Your task to perform on an android device: Go to Google maps Image 0: 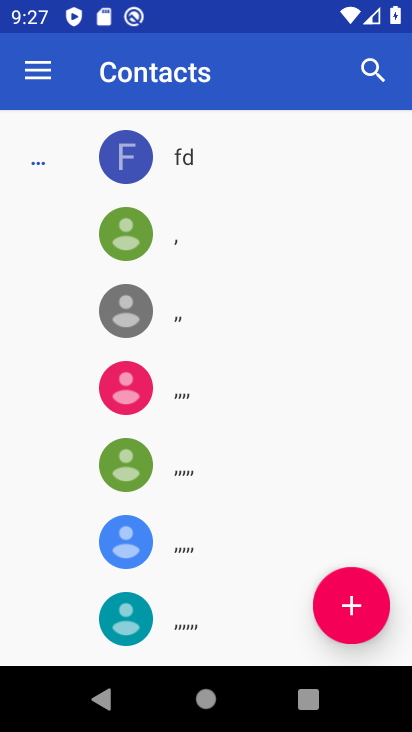
Step 0: press home button
Your task to perform on an android device: Go to Google maps Image 1: 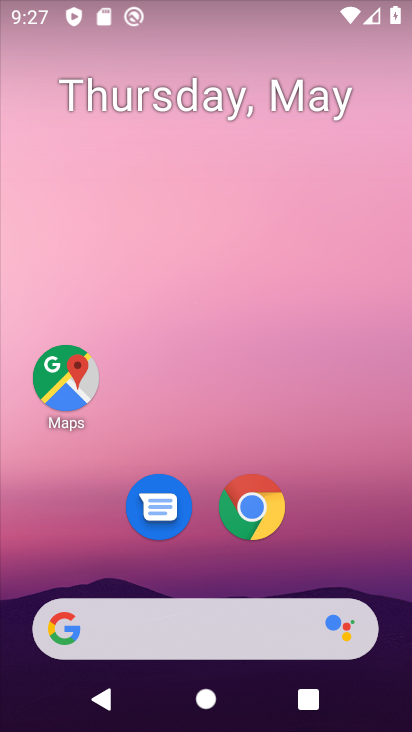
Step 1: drag from (366, 549) to (314, 199)
Your task to perform on an android device: Go to Google maps Image 2: 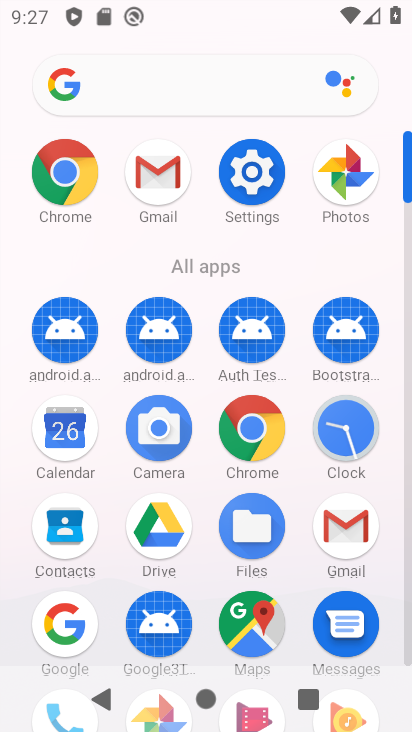
Step 2: click (247, 606)
Your task to perform on an android device: Go to Google maps Image 3: 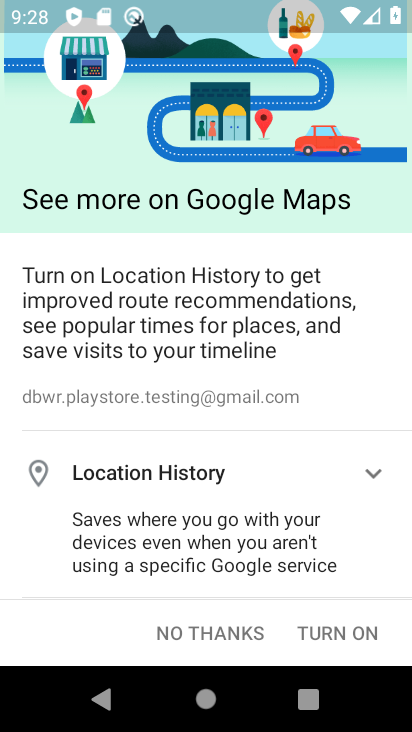
Step 3: click (237, 638)
Your task to perform on an android device: Go to Google maps Image 4: 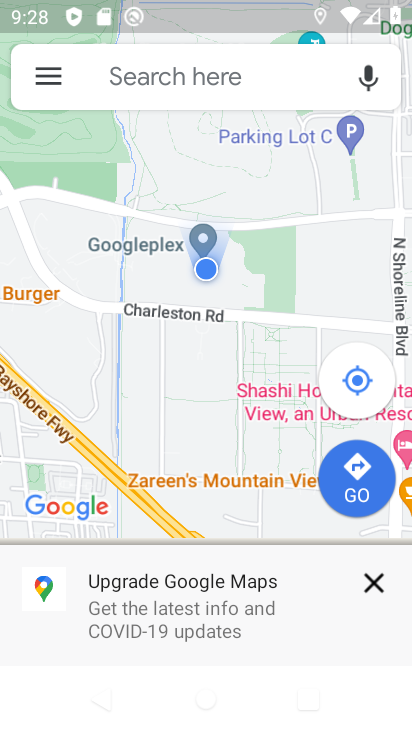
Step 4: task complete